Your task to perform on an android device: Is it going to rain today? Image 0: 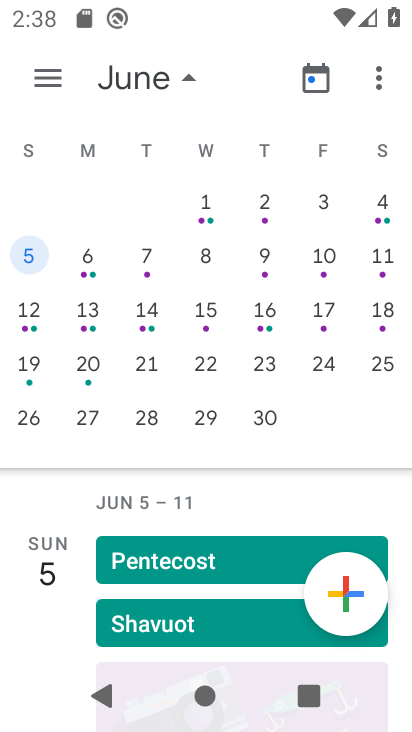
Step 0: press home button
Your task to perform on an android device: Is it going to rain today? Image 1: 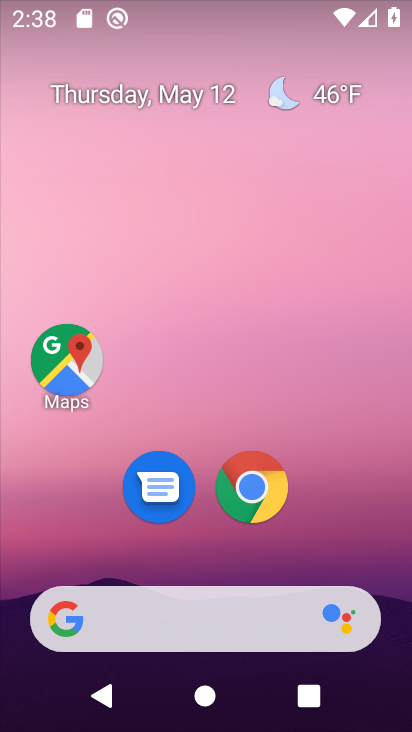
Step 1: click (161, 622)
Your task to perform on an android device: Is it going to rain today? Image 2: 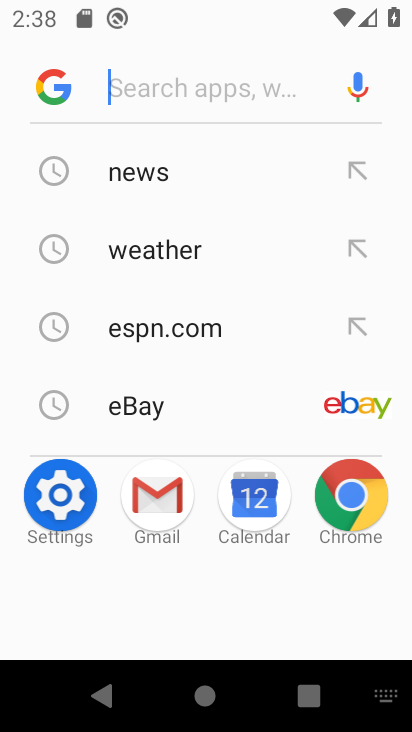
Step 2: type "is it going to rain today"
Your task to perform on an android device: Is it going to rain today? Image 3: 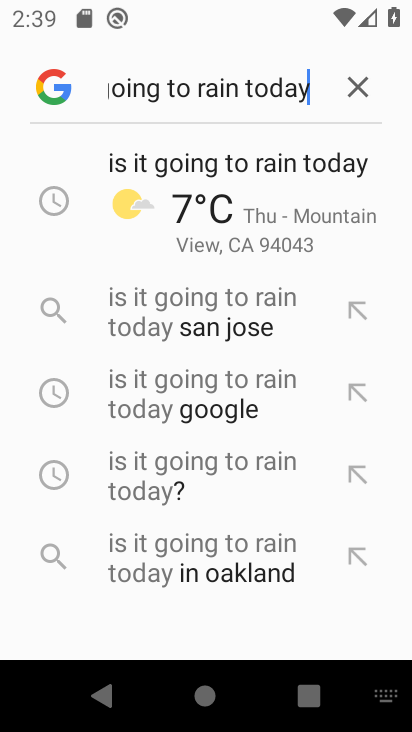
Step 3: click (240, 192)
Your task to perform on an android device: Is it going to rain today? Image 4: 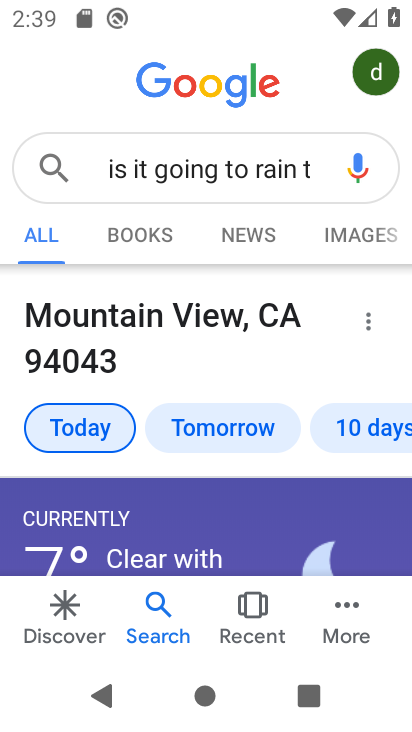
Step 4: task complete